Your task to perform on an android device: Go to Wikipedia Image 0: 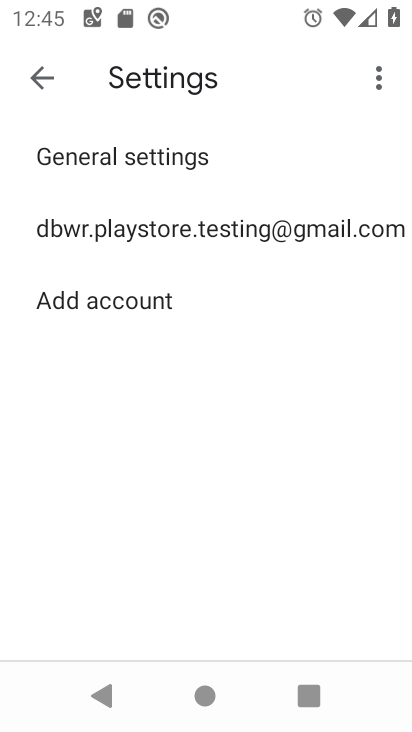
Step 0: press home button
Your task to perform on an android device: Go to Wikipedia Image 1: 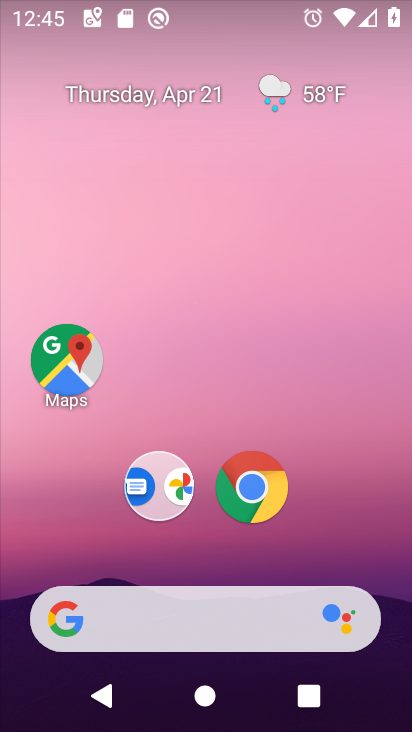
Step 1: drag from (247, 654) to (276, 157)
Your task to perform on an android device: Go to Wikipedia Image 2: 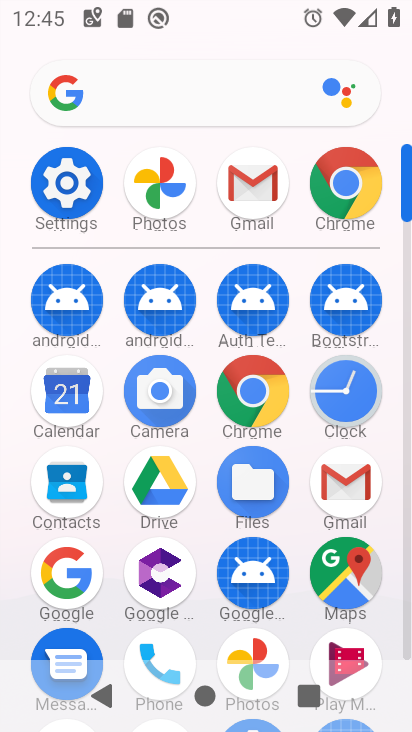
Step 2: click (361, 167)
Your task to perform on an android device: Go to Wikipedia Image 3: 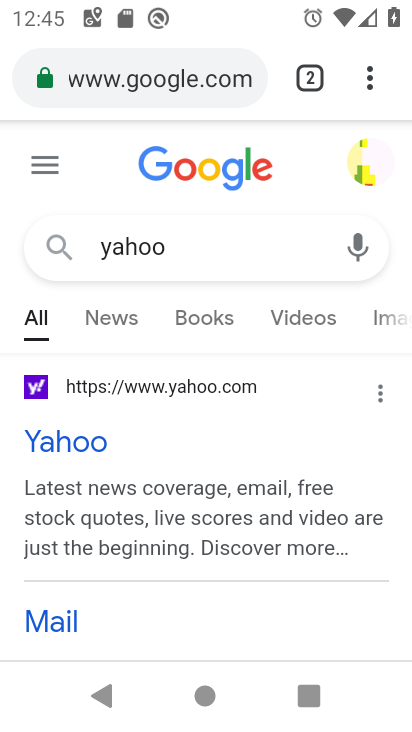
Step 3: click (307, 80)
Your task to perform on an android device: Go to Wikipedia Image 4: 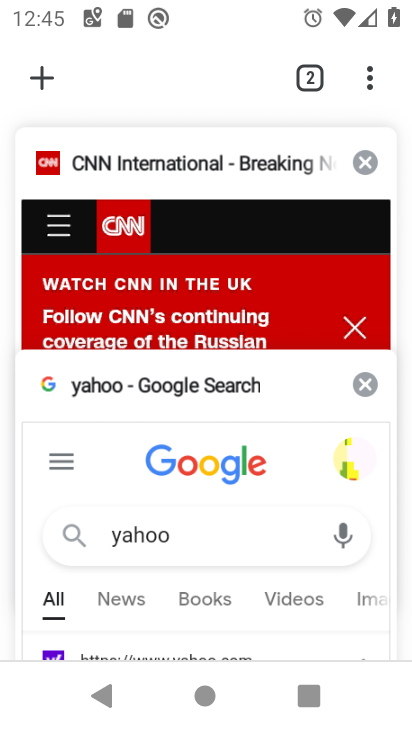
Step 4: click (49, 79)
Your task to perform on an android device: Go to Wikipedia Image 5: 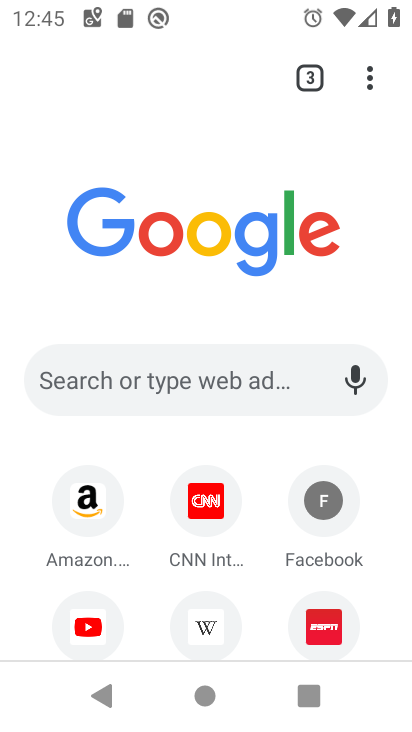
Step 5: click (205, 599)
Your task to perform on an android device: Go to Wikipedia Image 6: 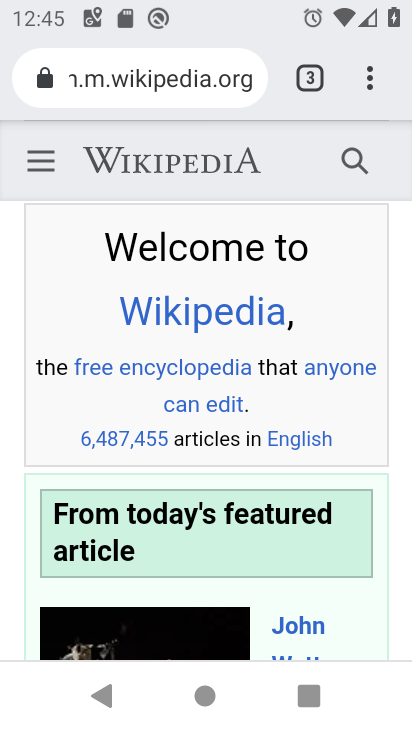
Step 6: task complete